Your task to perform on an android device: check google app version Image 0: 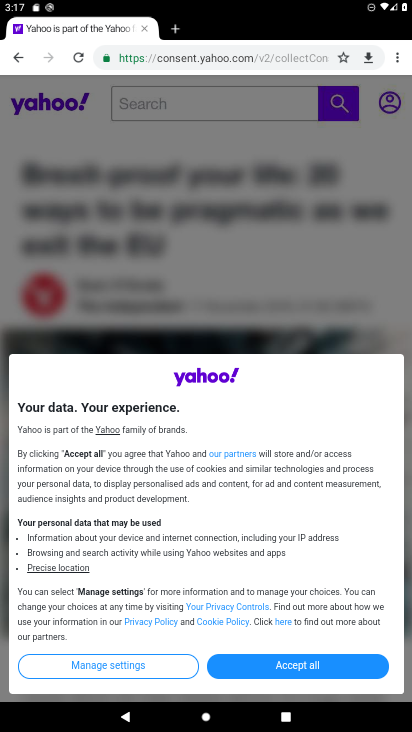
Step 0: press home button
Your task to perform on an android device: check google app version Image 1: 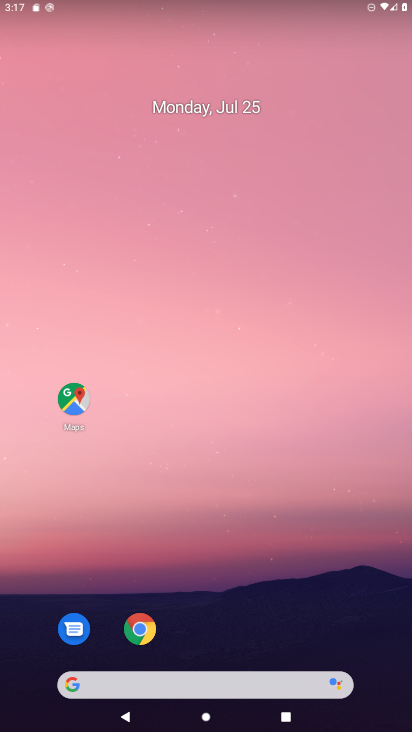
Step 1: drag from (235, 631) to (203, 24)
Your task to perform on an android device: check google app version Image 2: 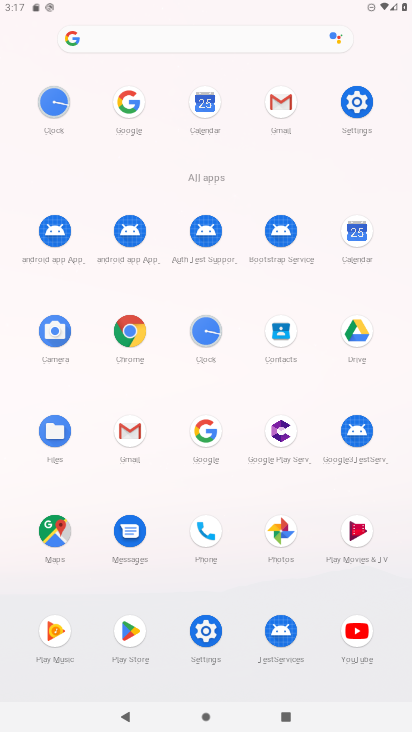
Step 2: click (205, 429)
Your task to perform on an android device: check google app version Image 3: 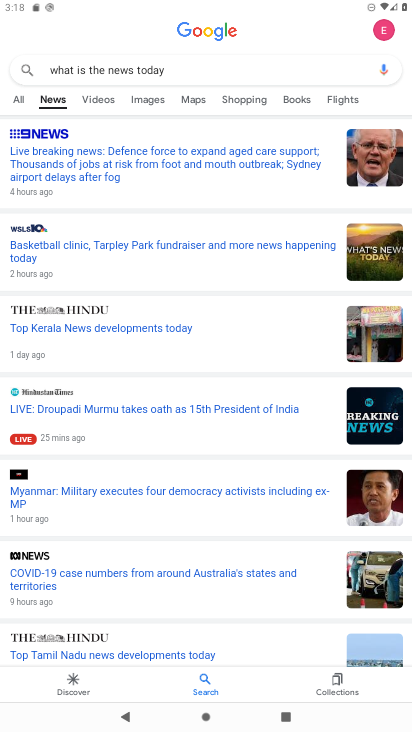
Step 3: click (387, 37)
Your task to perform on an android device: check google app version Image 4: 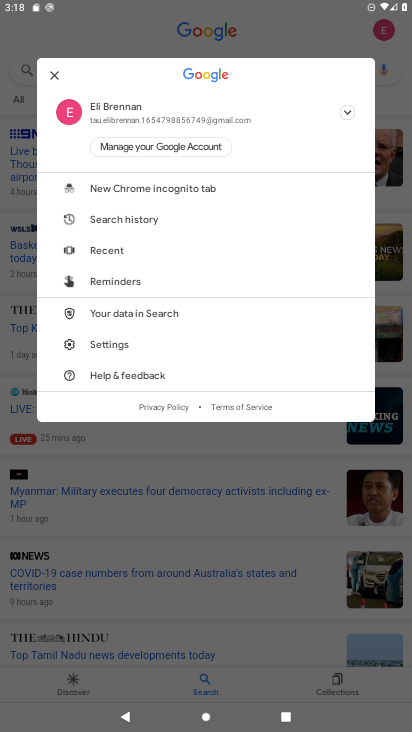
Step 4: click (100, 342)
Your task to perform on an android device: check google app version Image 5: 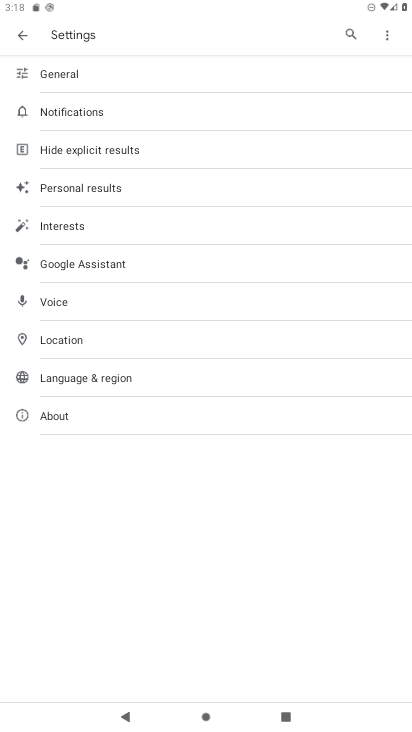
Step 5: click (73, 414)
Your task to perform on an android device: check google app version Image 6: 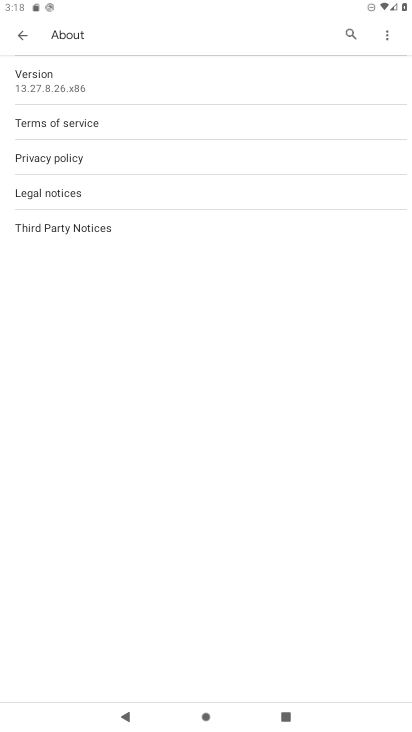
Step 6: click (125, 75)
Your task to perform on an android device: check google app version Image 7: 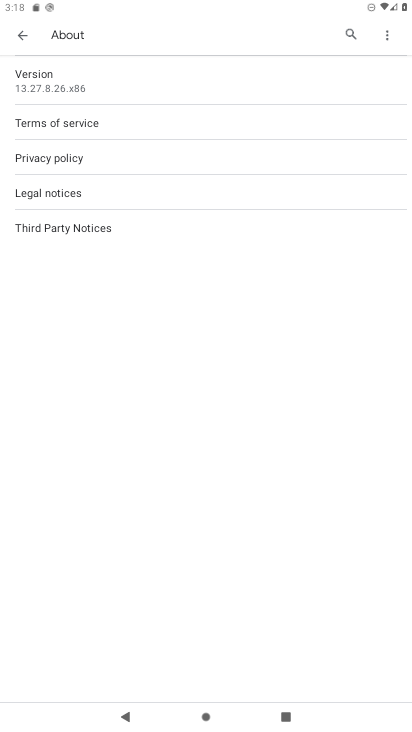
Step 7: task complete